Your task to perform on an android device: When is my next appointment? Image 0: 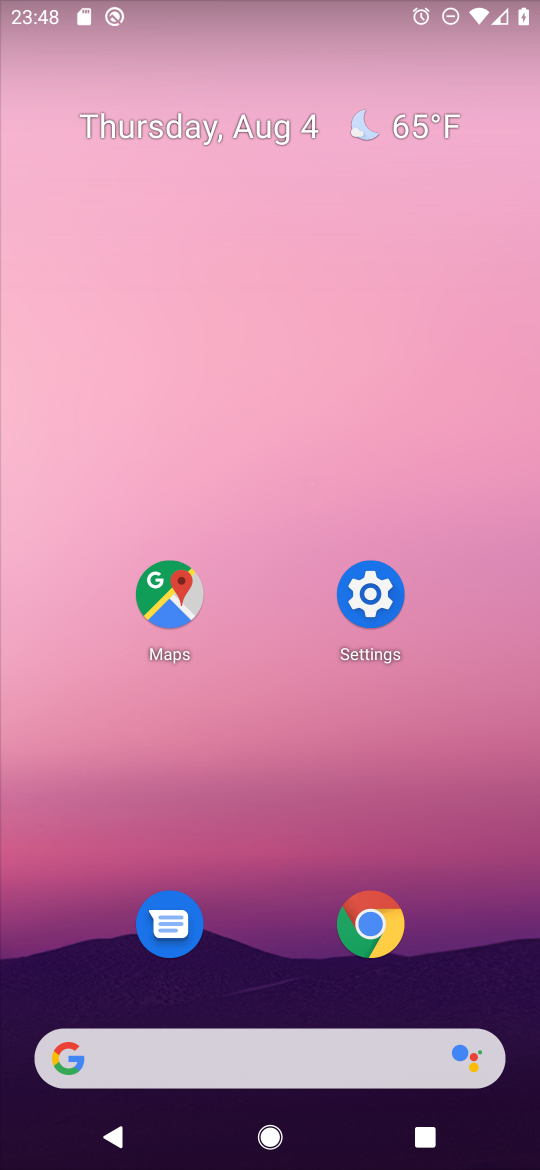
Step 0: press home button
Your task to perform on an android device: When is my next appointment? Image 1: 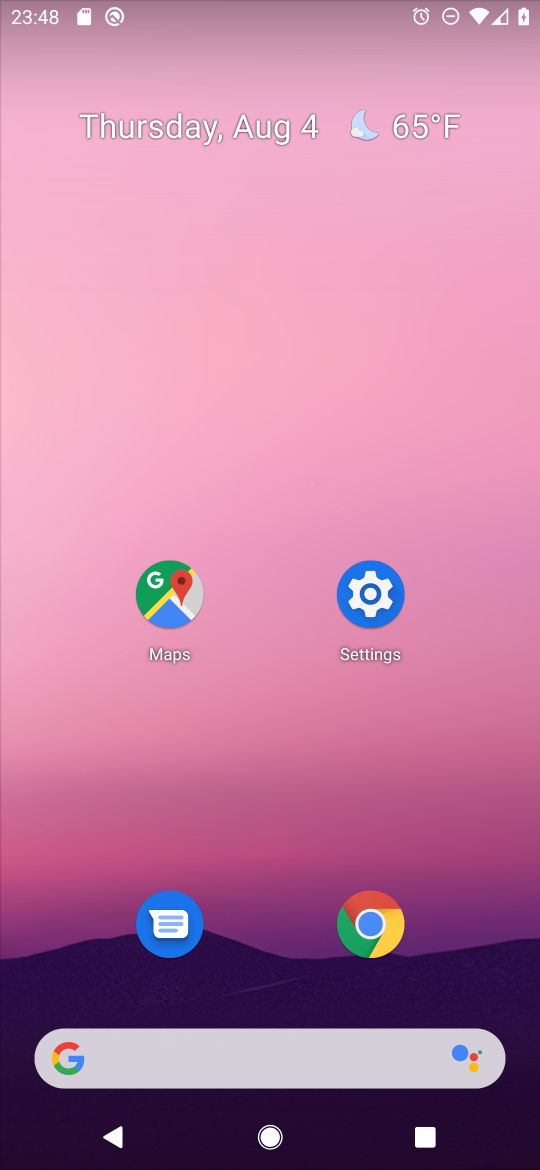
Step 1: click (176, 1049)
Your task to perform on an android device: When is my next appointment? Image 2: 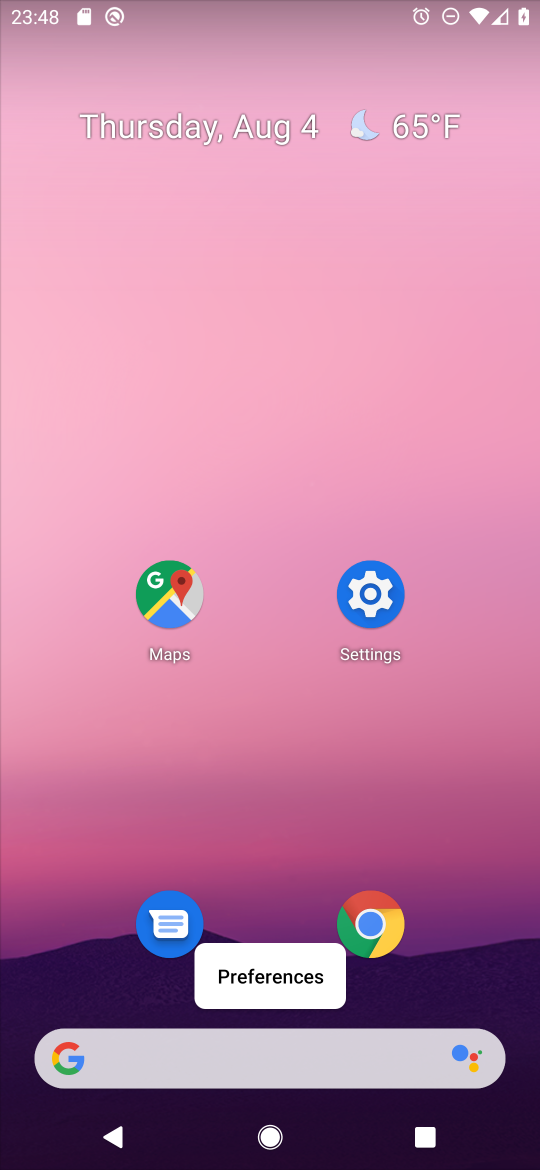
Step 2: click (189, 1041)
Your task to perform on an android device: When is my next appointment? Image 3: 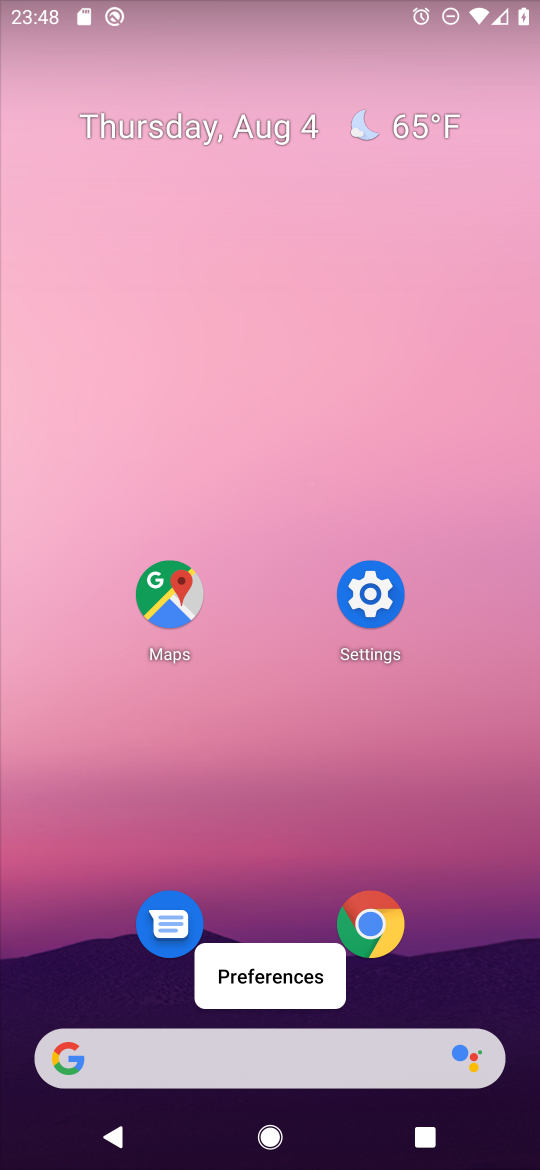
Step 3: drag from (192, 1061) to (421, 210)
Your task to perform on an android device: When is my next appointment? Image 4: 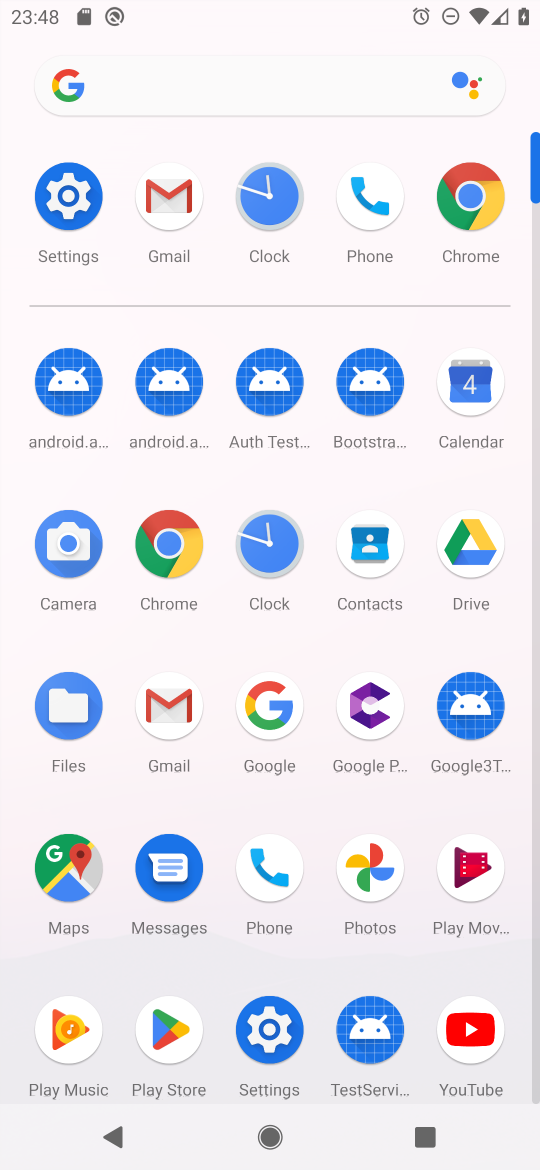
Step 4: click (465, 375)
Your task to perform on an android device: When is my next appointment? Image 5: 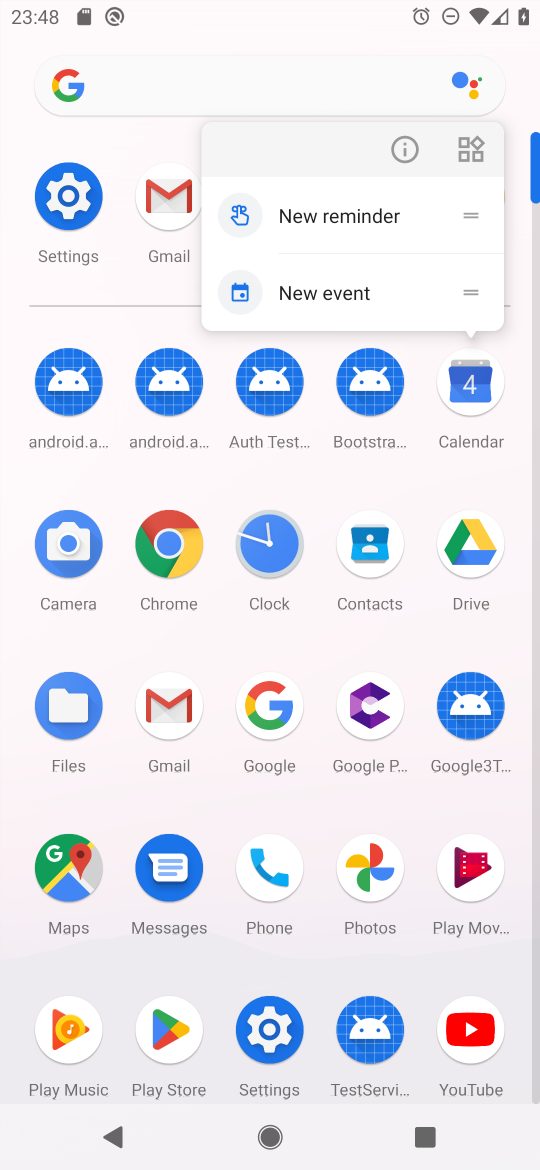
Step 5: click (473, 387)
Your task to perform on an android device: When is my next appointment? Image 6: 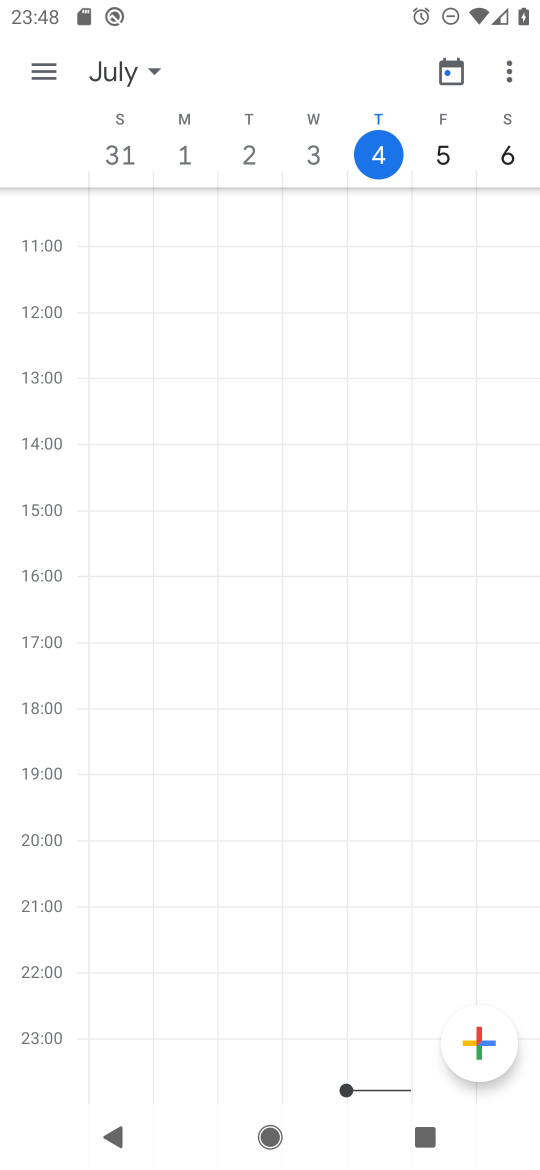
Step 6: click (126, 79)
Your task to perform on an android device: When is my next appointment? Image 7: 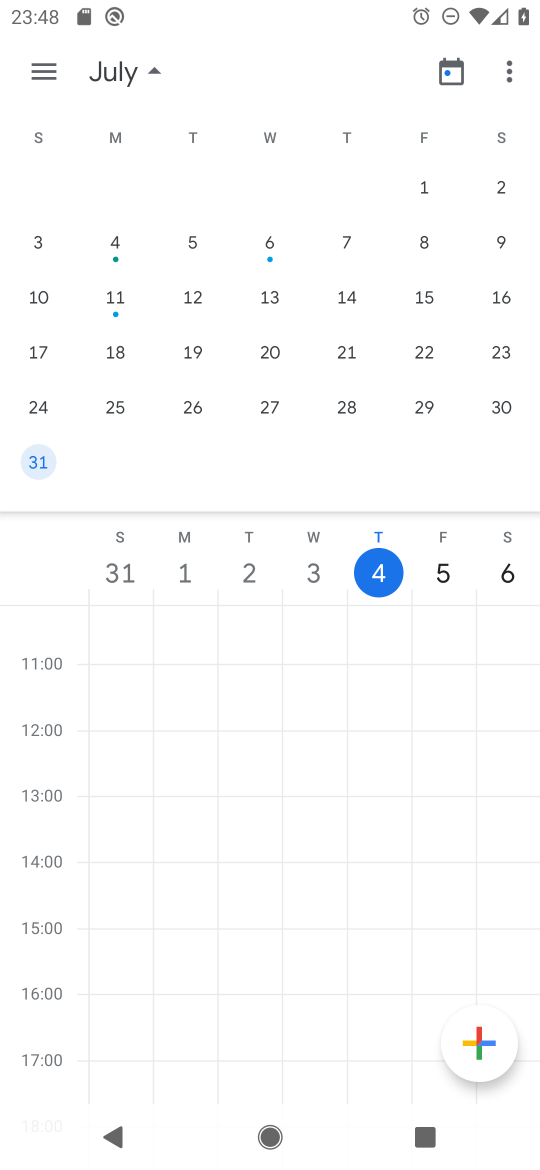
Step 7: drag from (516, 367) to (217, 243)
Your task to perform on an android device: When is my next appointment? Image 8: 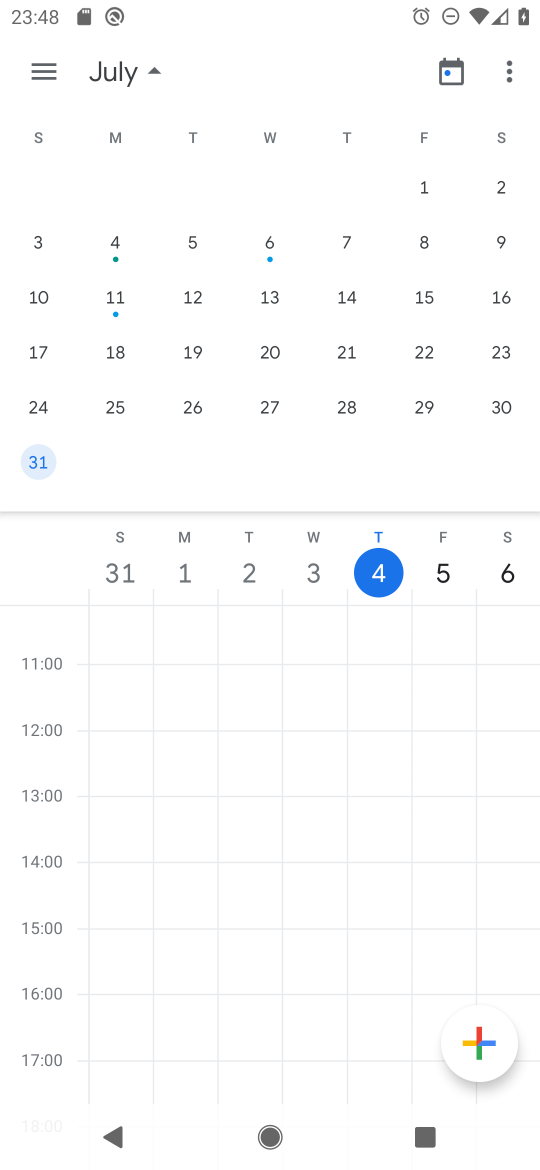
Step 8: drag from (406, 327) to (11, 446)
Your task to perform on an android device: When is my next appointment? Image 9: 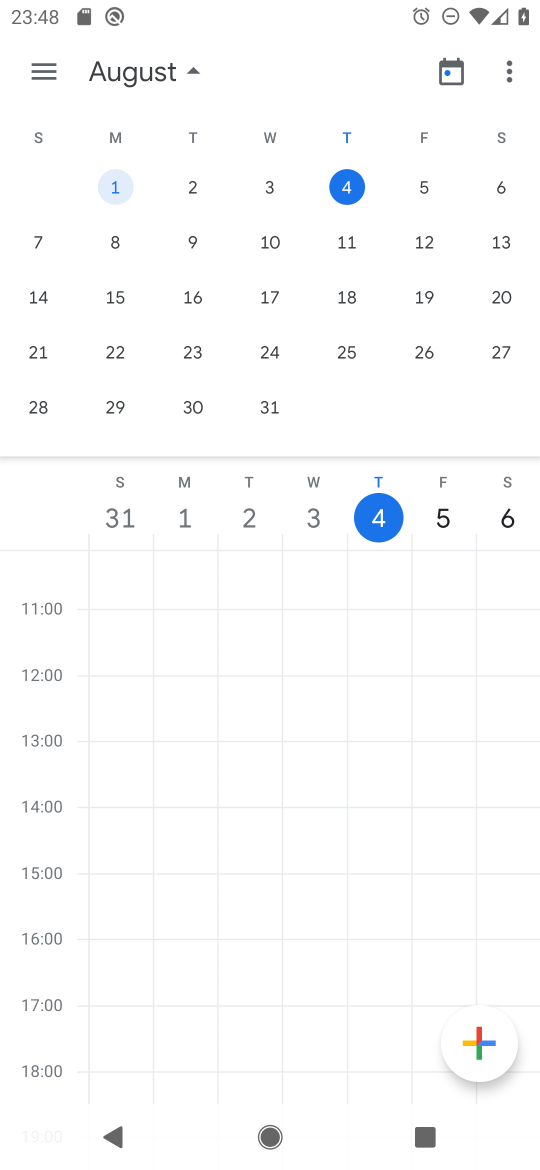
Step 9: click (346, 193)
Your task to perform on an android device: When is my next appointment? Image 10: 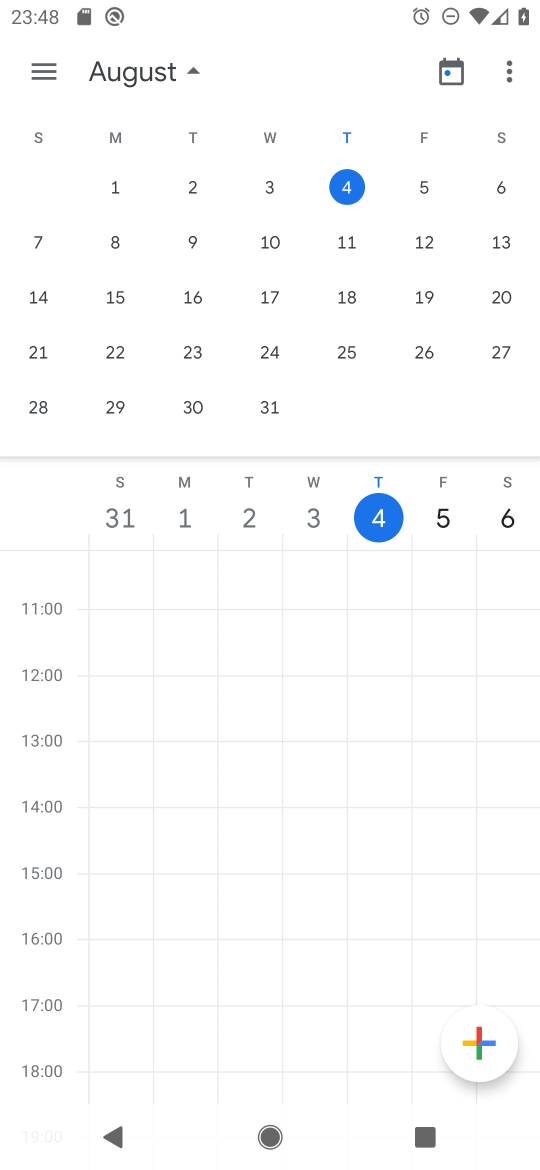
Step 10: click (38, 78)
Your task to perform on an android device: When is my next appointment? Image 11: 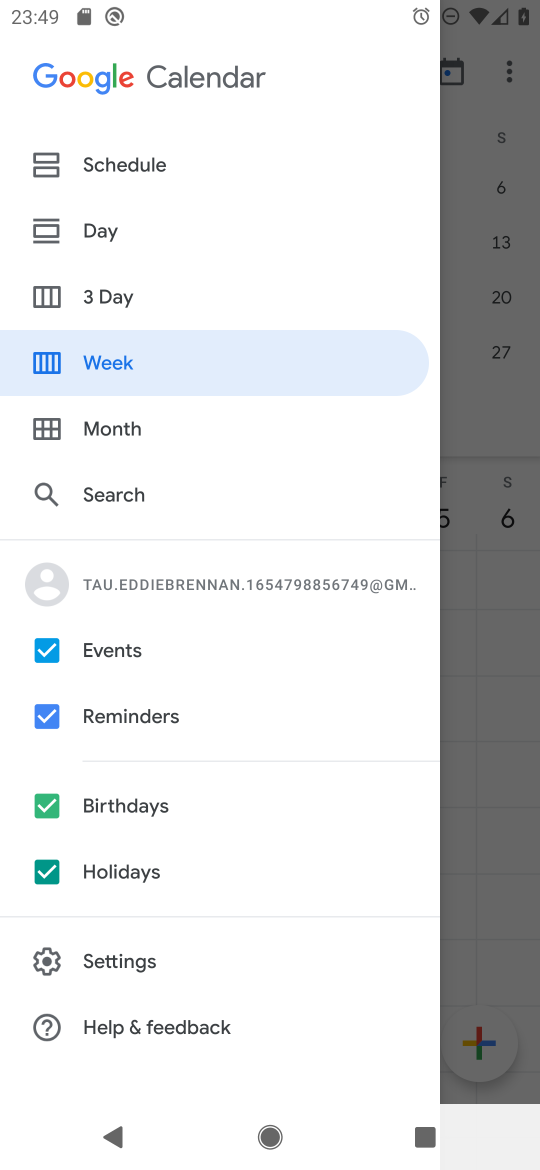
Step 11: click (118, 163)
Your task to perform on an android device: When is my next appointment? Image 12: 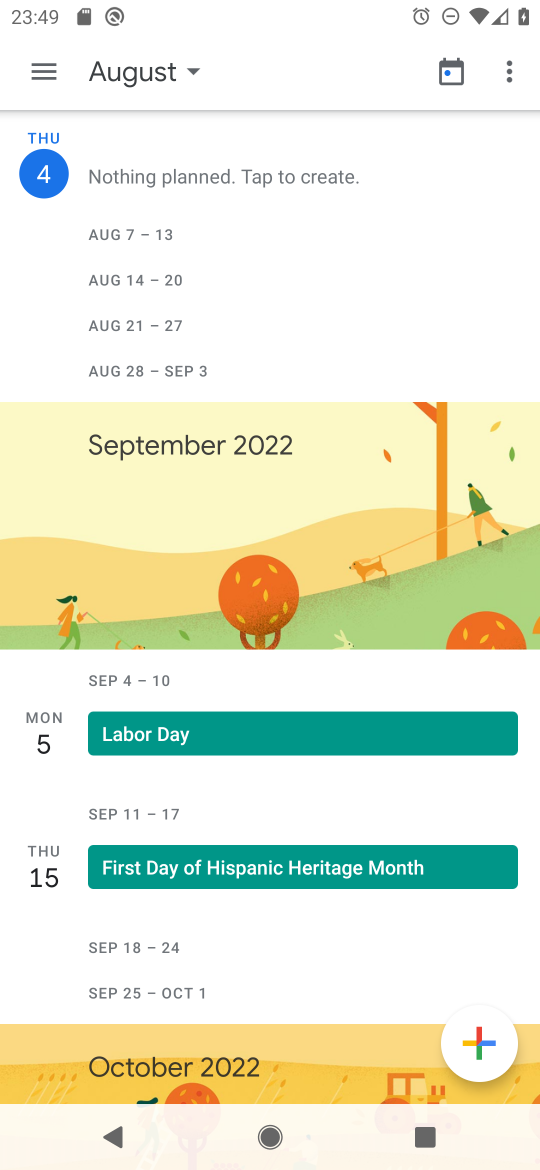
Step 12: task complete